Your task to perform on an android device: turn on airplane mode Image 0: 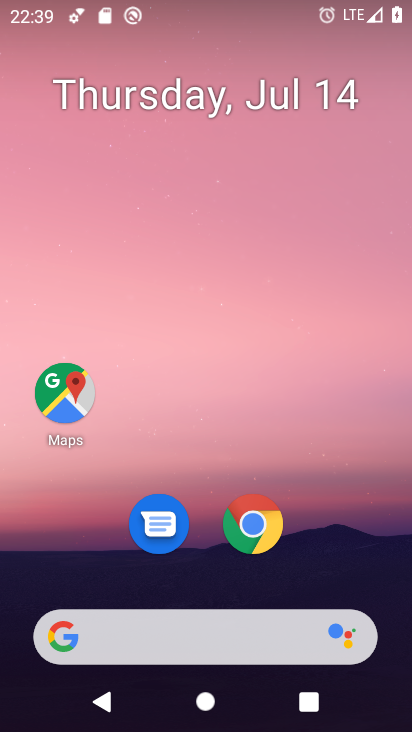
Step 0: drag from (246, 422) to (327, 6)
Your task to perform on an android device: turn on airplane mode Image 1: 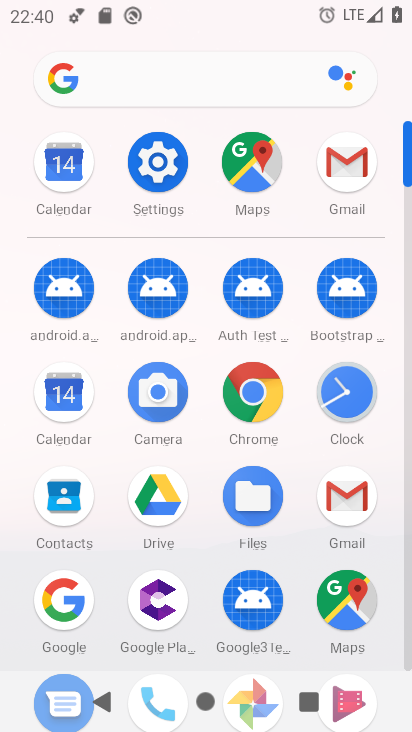
Step 1: click (159, 156)
Your task to perform on an android device: turn on airplane mode Image 2: 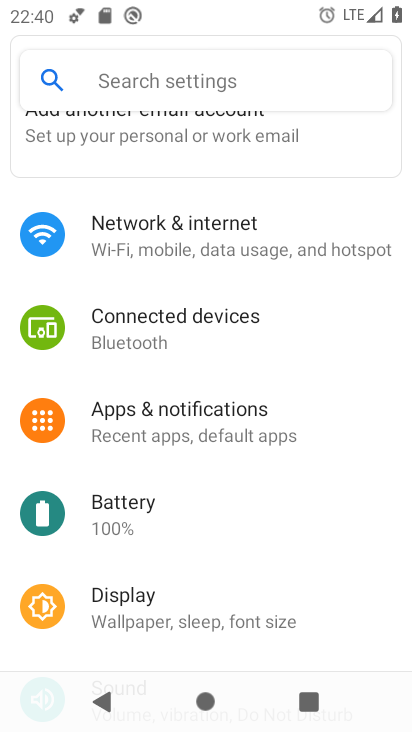
Step 2: click (183, 237)
Your task to perform on an android device: turn on airplane mode Image 3: 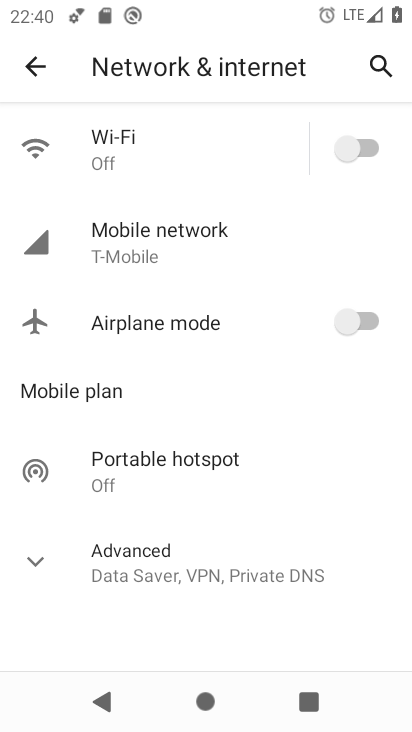
Step 3: click (346, 320)
Your task to perform on an android device: turn on airplane mode Image 4: 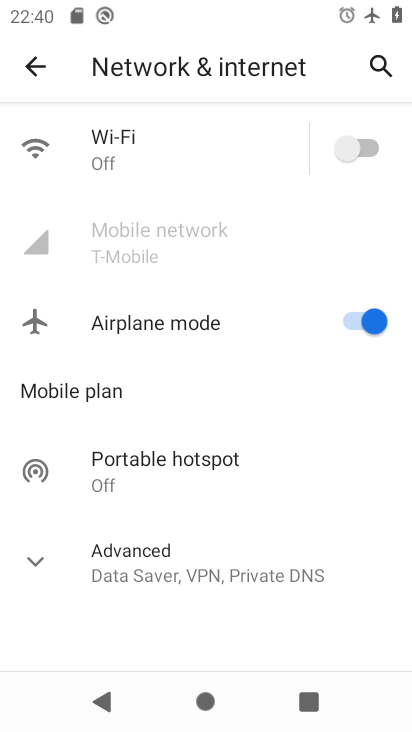
Step 4: task complete